Your task to perform on an android device: Open Youtube and go to "Your channel" Image 0: 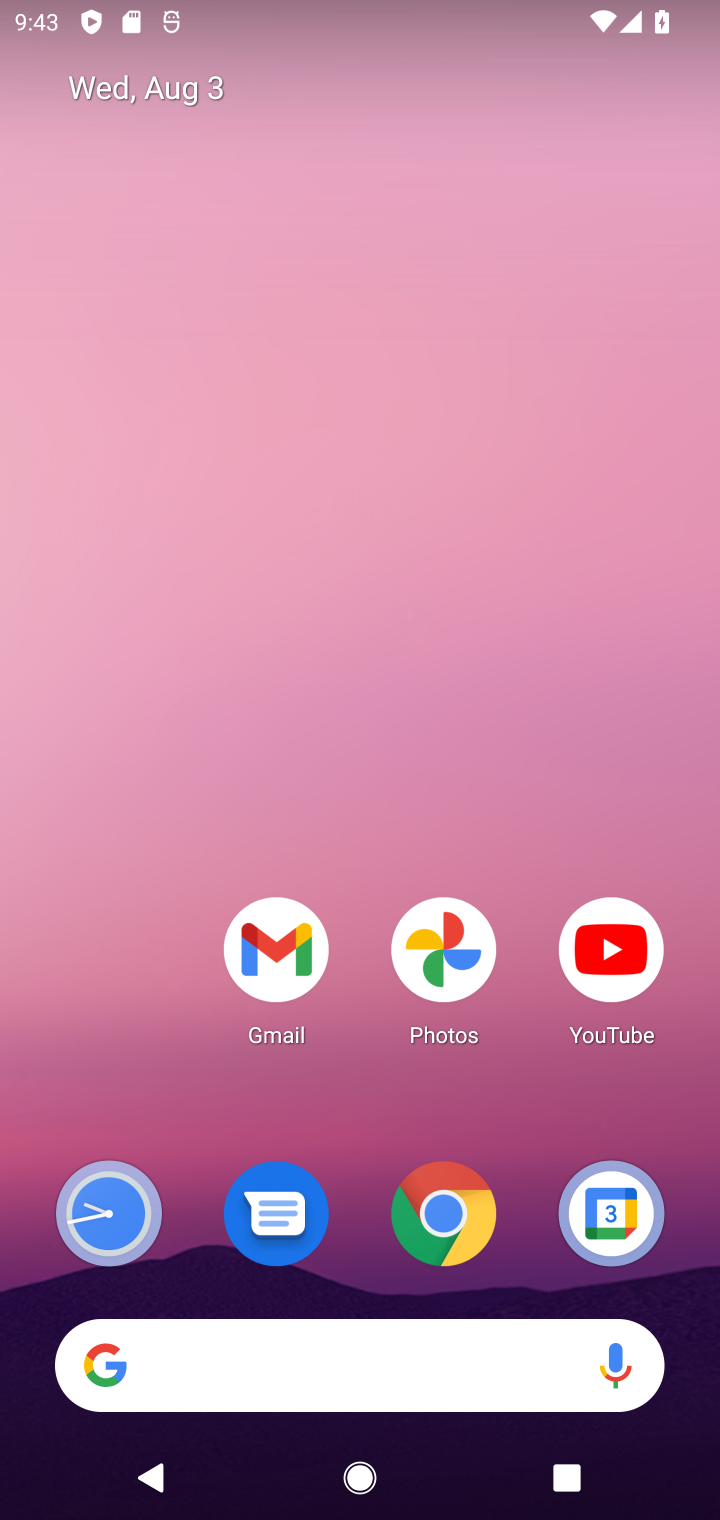
Step 0: click (625, 997)
Your task to perform on an android device: Open Youtube and go to "Your channel" Image 1: 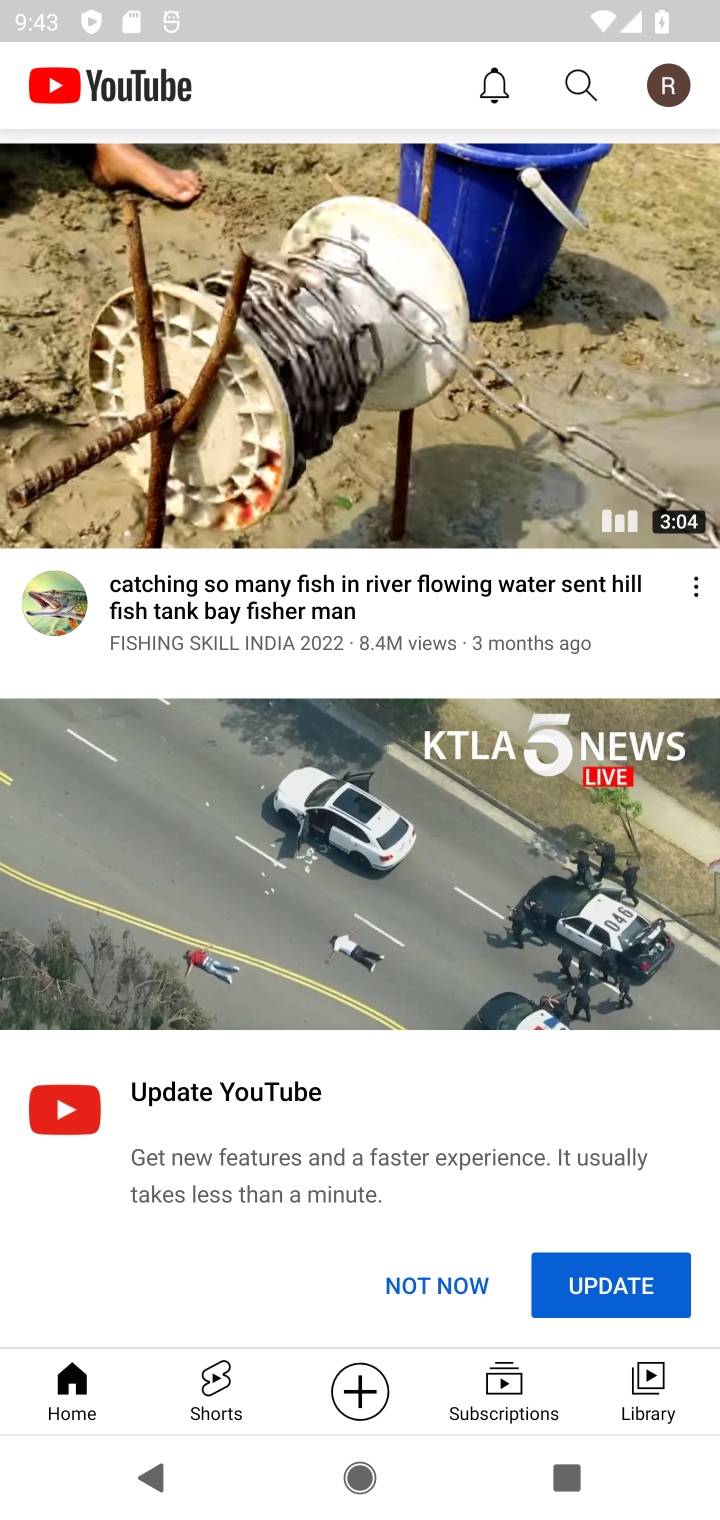
Step 1: click (682, 99)
Your task to perform on an android device: Open Youtube and go to "Your channel" Image 2: 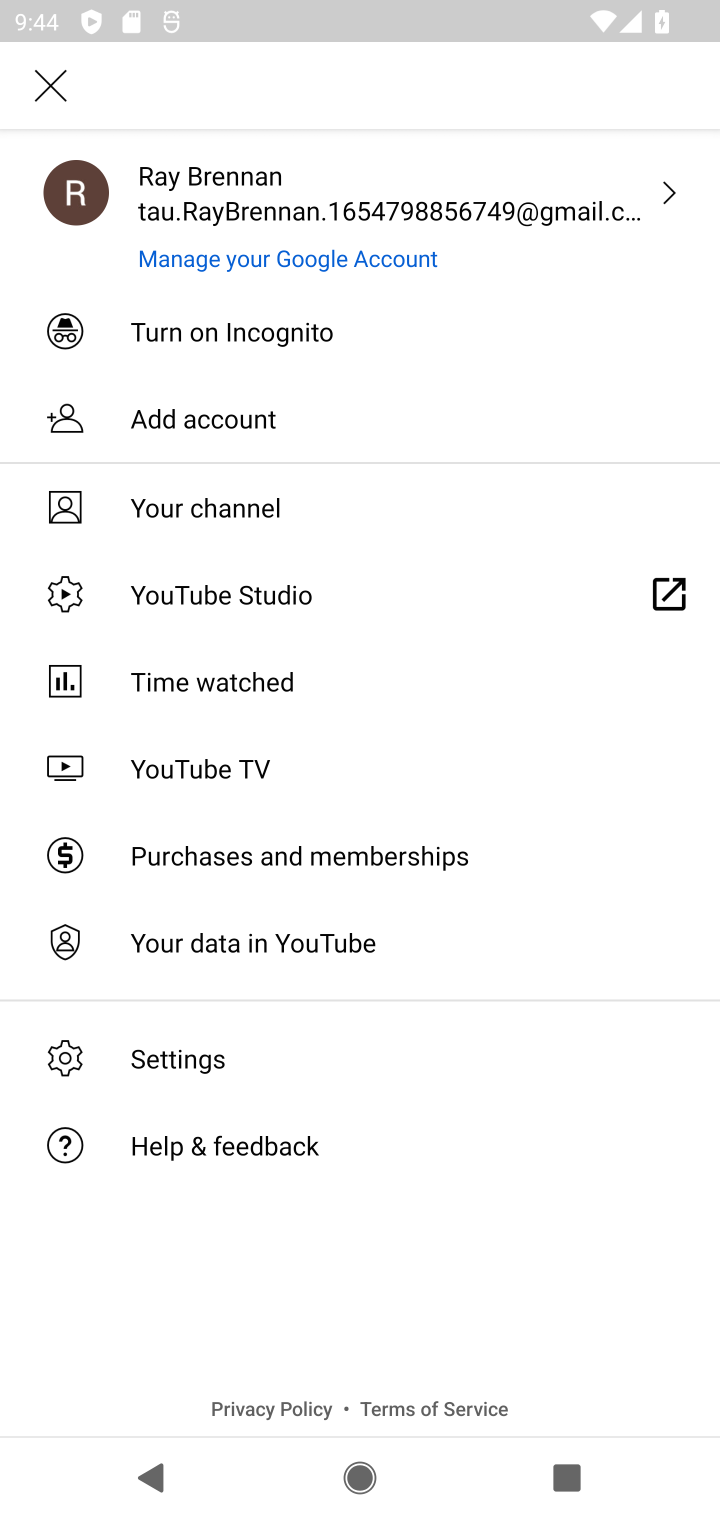
Step 2: click (238, 509)
Your task to perform on an android device: Open Youtube and go to "Your channel" Image 3: 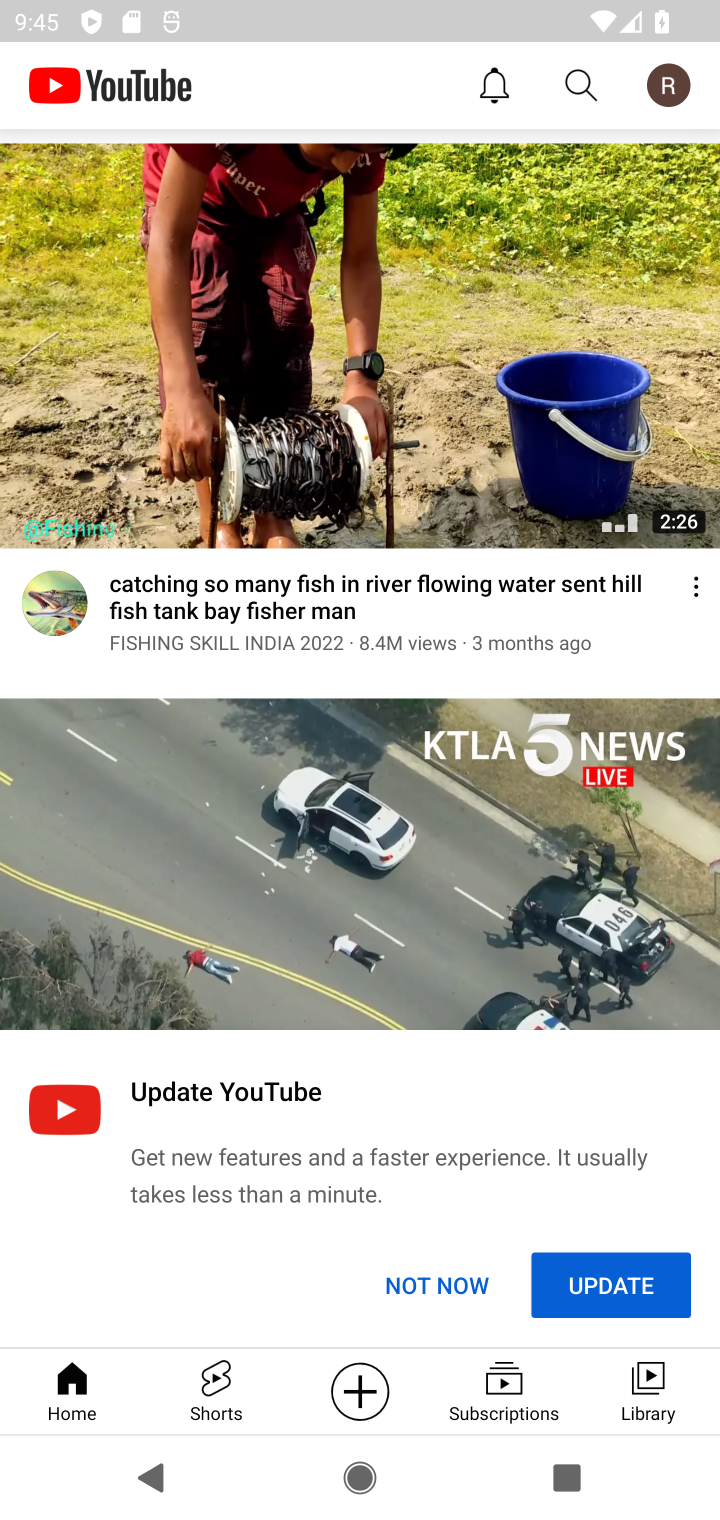
Step 3: click (673, 93)
Your task to perform on an android device: Open Youtube and go to "Your channel" Image 4: 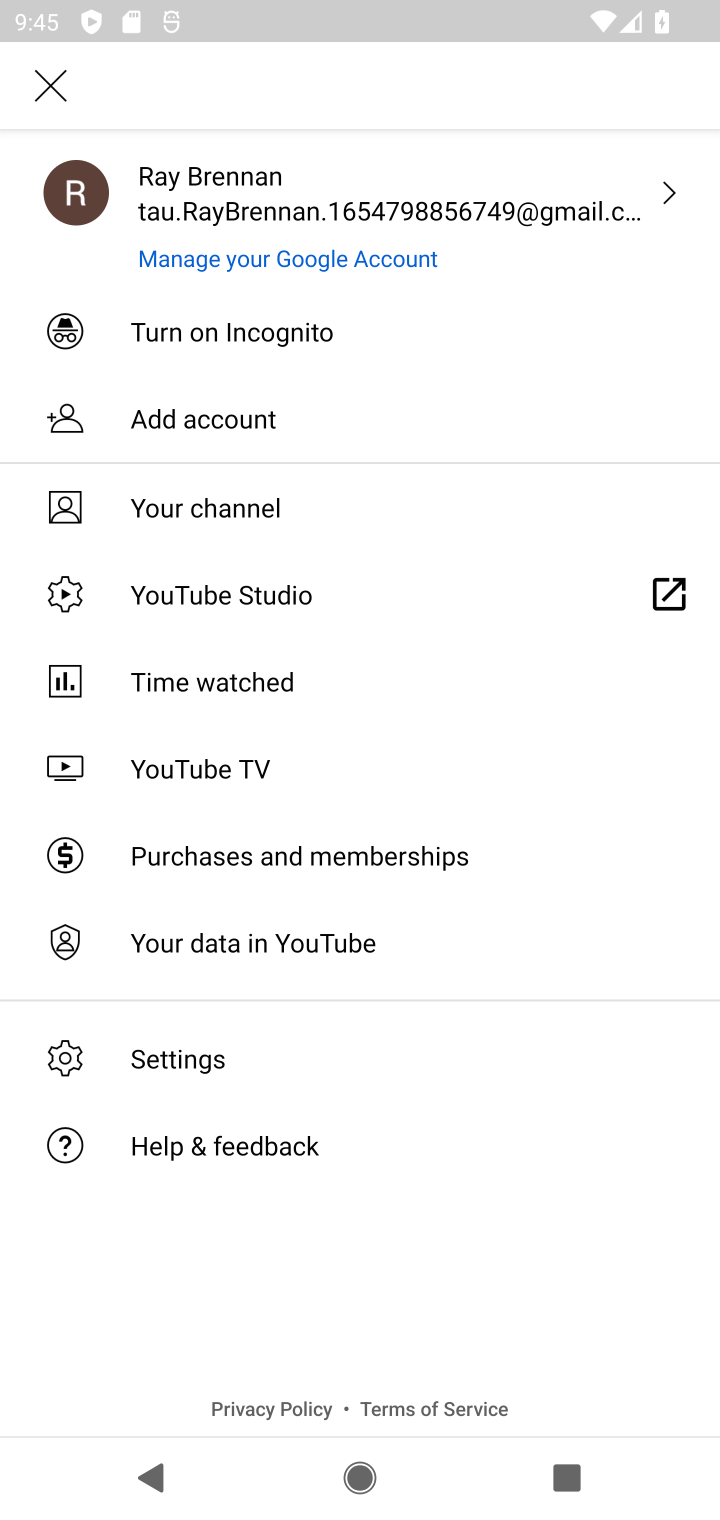
Step 4: click (246, 516)
Your task to perform on an android device: Open Youtube and go to "Your channel" Image 5: 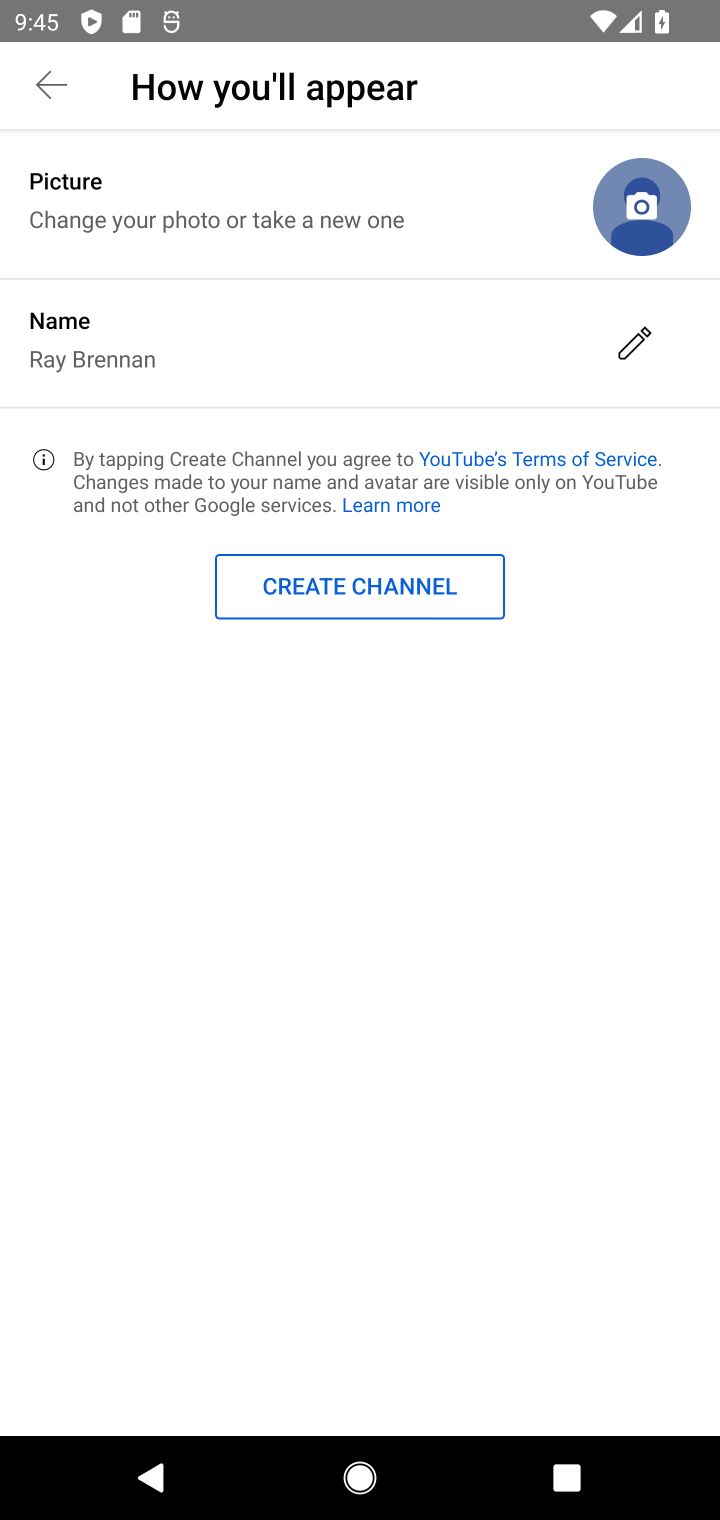
Step 5: task complete